Your task to perform on an android device: all mails in gmail Image 0: 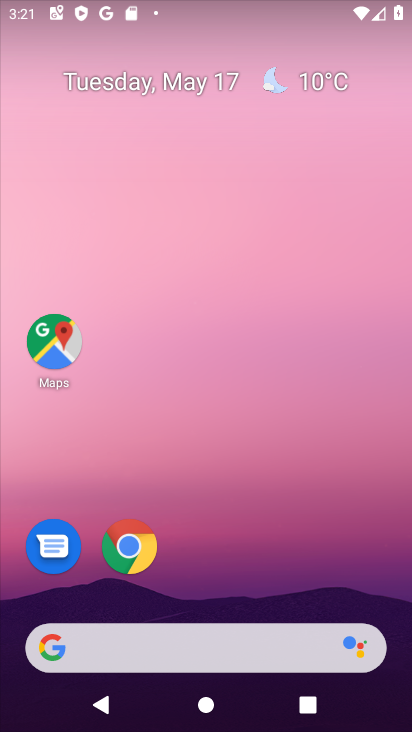
Step 0: drag from (214, 587) to (286, 13)
Your task to perform on an android device: all mails in gmail Image 1: 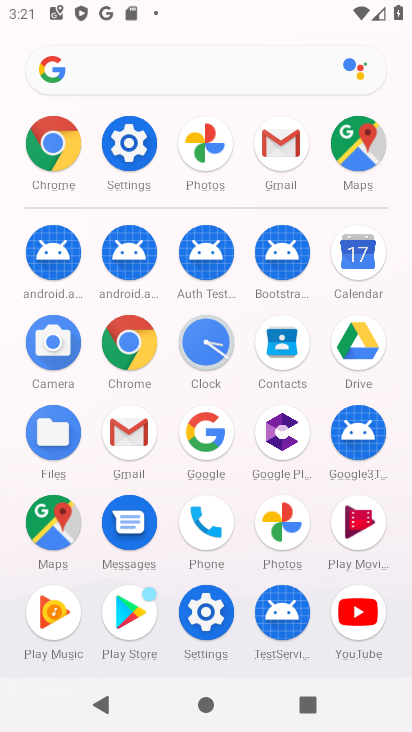
Step 1: click (127, 445)
Your task to perform on an android device: all mails in gmail Image 2: 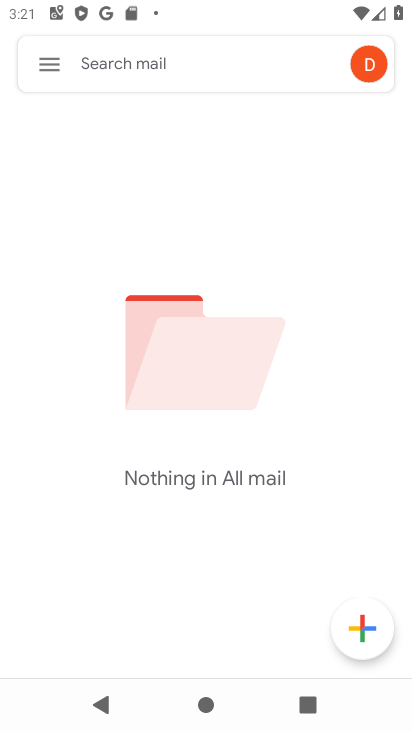
Step 2: task complete